Your task to perform on an android device: move an email to a new category in the gmail app Image 0: 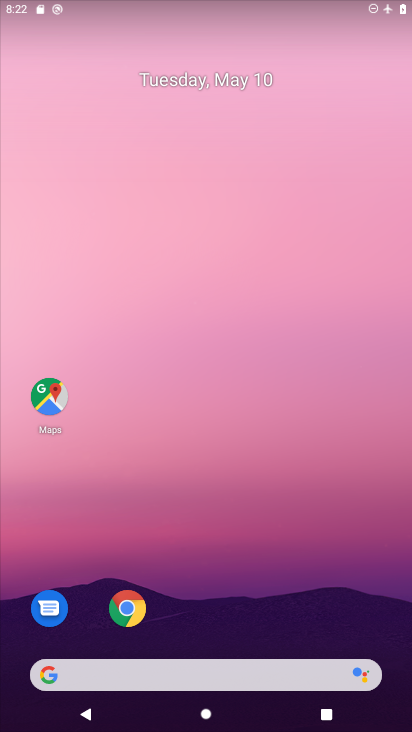
Step 0: drag from (254, 461) to (216, 199)
Your task to perform on an android device: move an email to a new category in the gmail app Image 1: 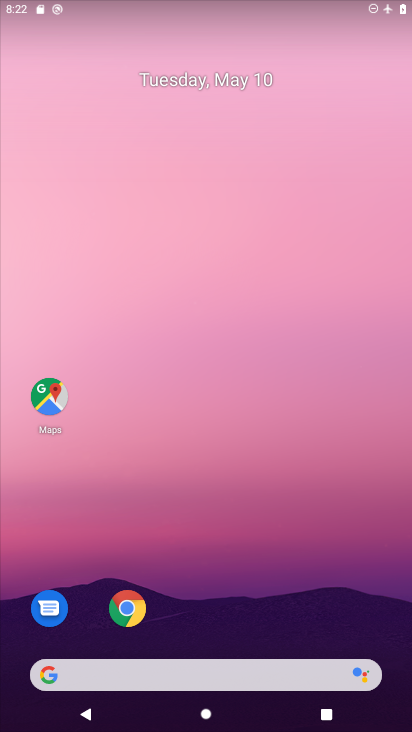
Step 1: drag from (259, 622) to (279, 247)
Your task to perform on an android device: move an email to a new category in the gmail app Image 2: 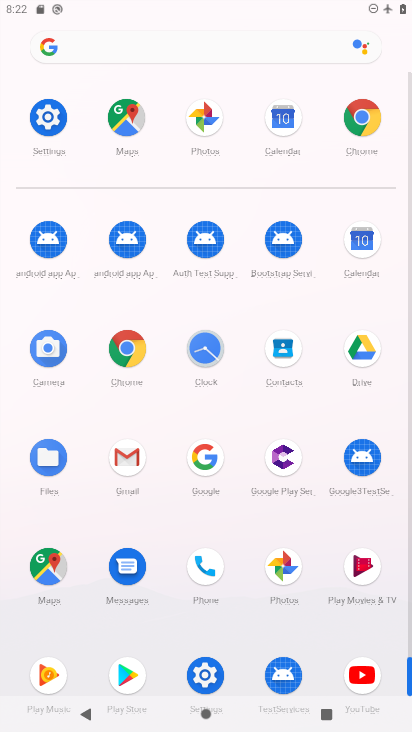
Step 2: click (124, 457)
Your task to perform on an android device: move an email to a new category in the gmail app Image 3: 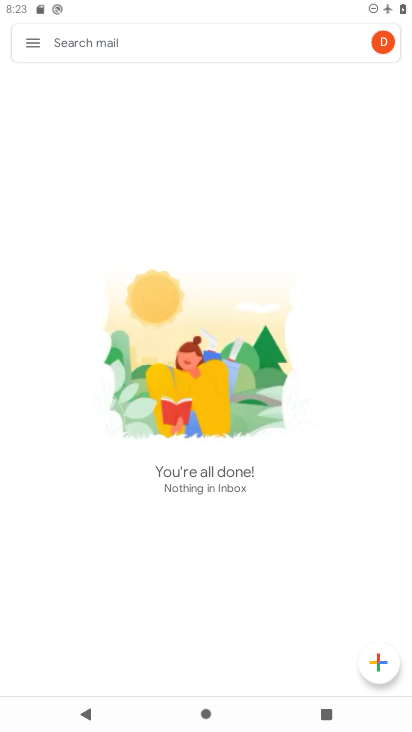
Step 3: click (30, 39)
Your task to perform on an android device: move an email to a new category in the gmail app Image 4: 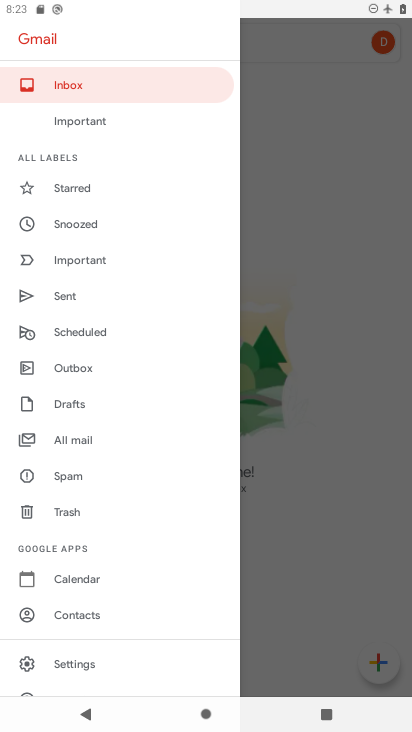
Step 4: click (92, 434)
Your task to perform on an android device: move an email to a new category in the gmail app Image 5: 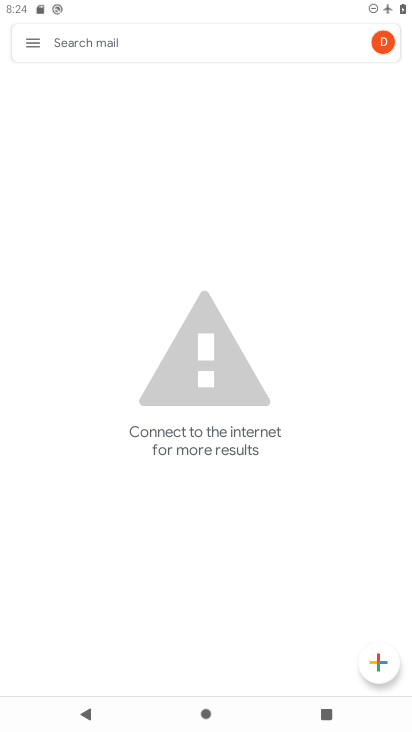
Step 5: task complete